Your task to perform on an android device: Show me popular videos on Youtube Image 0: 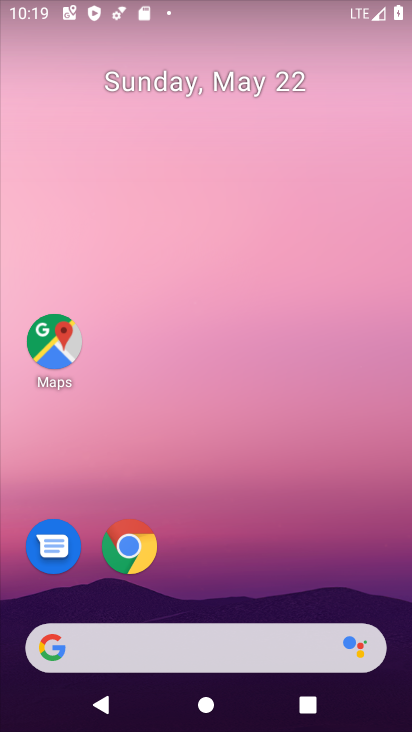
Step 0: drag from (176, 554) to (229, 0)
Your task to perform on an android device: Show me popular videos on Youtube Image 1: 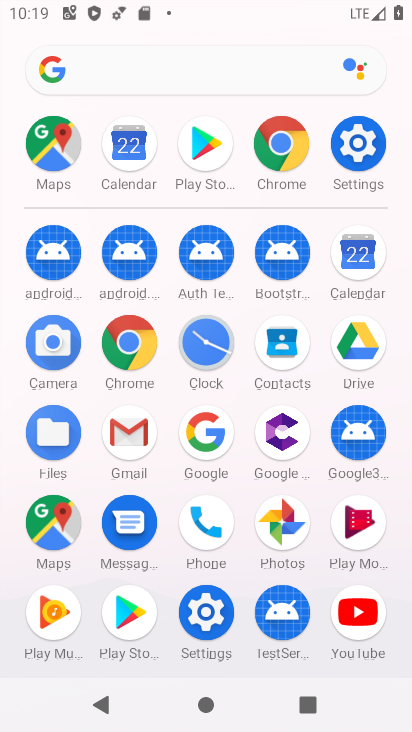
Step 1: click (349, 622)
Your task to perform on an android device: Show me popular videos on Youtube Image 2: 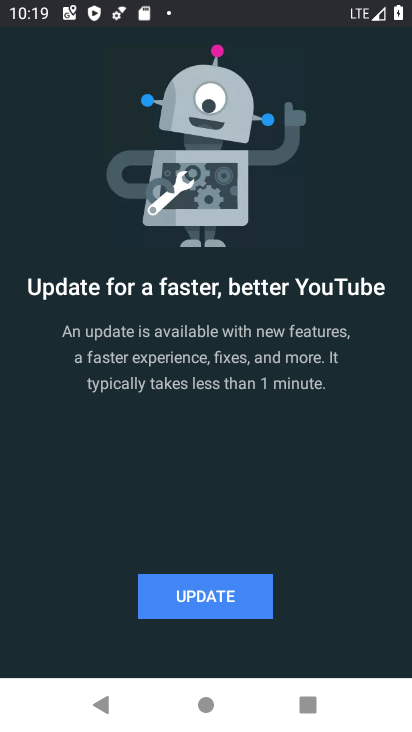
Step 2: click (208, 612)
Your task to perform on an android device: Show me popular videos on Youtube Image 3: 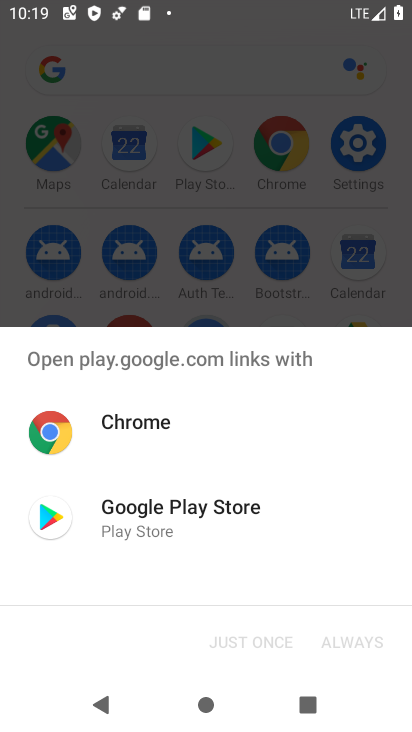
Step 3: click (242, 512)
Your task to perform on an android device: Show me popular videos on Youtube Image 4: 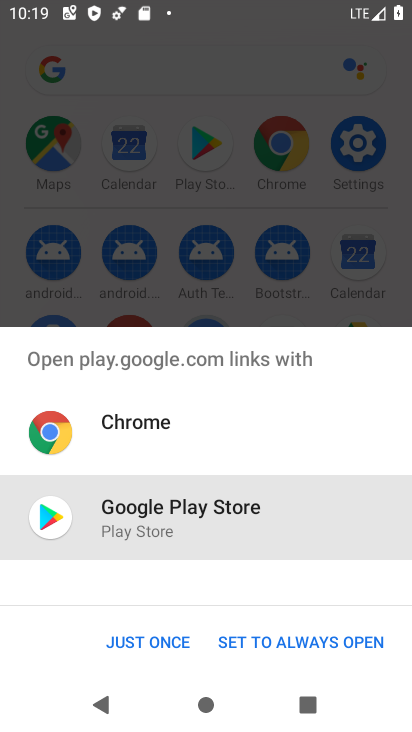
Step 4: click (118, 667)
Your task to perform on an android device: Show me popular videos on Youtube Image 5: 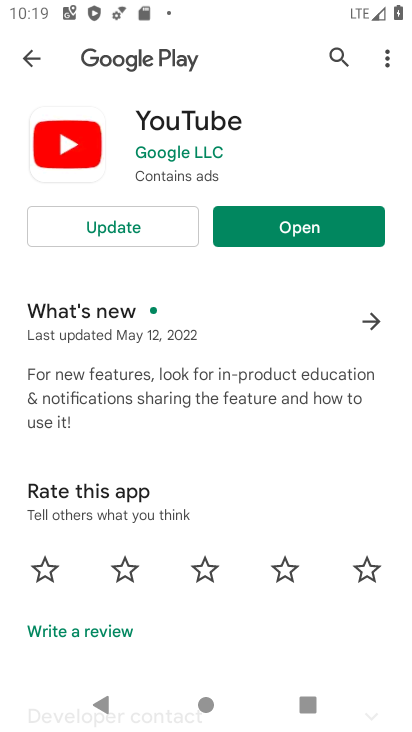
Step 5: click (113, 240)
Your task to perform on an android device: Show me popular videos on Youtube Image 6: 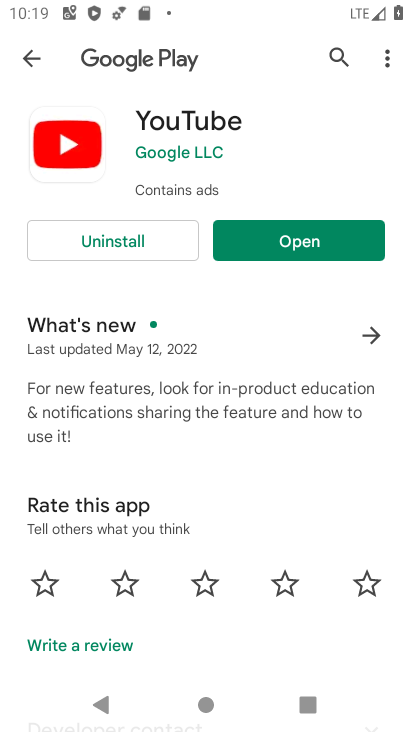
Step 6: click (293, 255)
Your task to perform on an android device: Show me popular videos on Youtube Image 7: 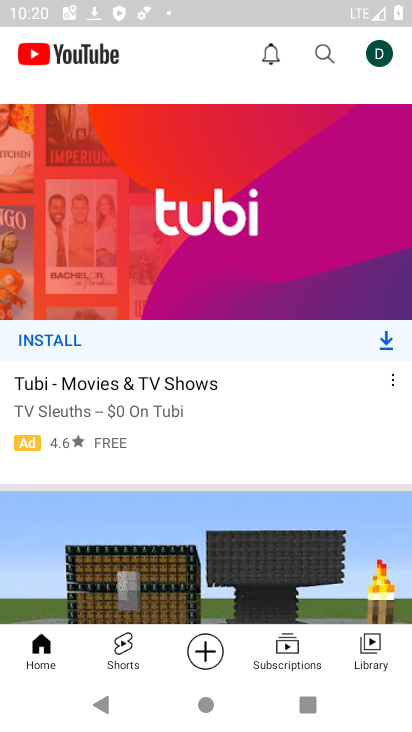
Step 7: task complete